Your task to perform on an android device: choose inbox layout in the gmail app Image 0: 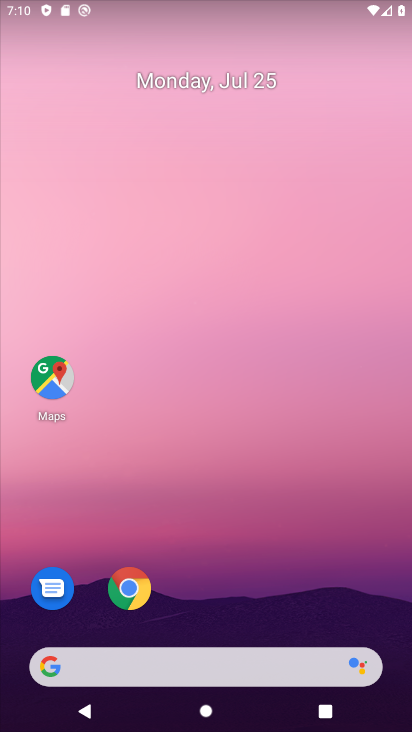
Step 0: drag from (212, 542) to (281, 277)
Your task to perform on an android device: choose inbox layout in the gmail app Image 1: 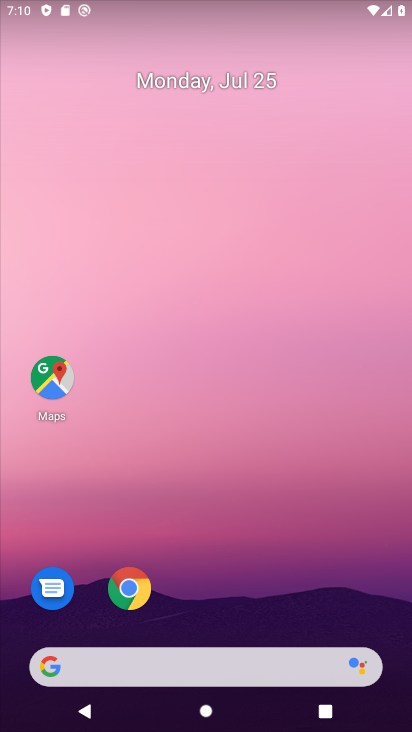
Step 1: drag from (304, 524) to (352, 95)
Your task to perform on an android device: choose inbox layout in the gmail app Image 2: 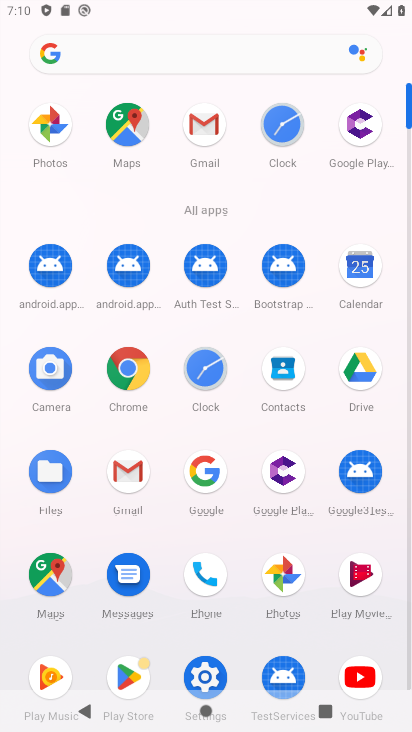
Step 2: click (195, 105)
Your task to perform on an android device: choose inbox layout in the gmail app Image 3: 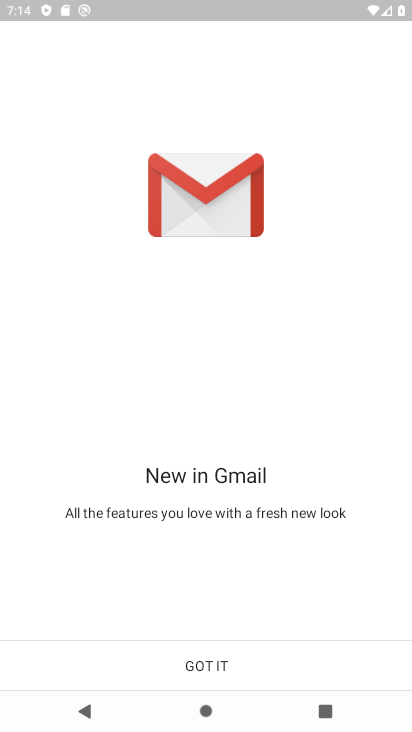
Step 3: click (202, 666)
Your task to perform on an android device: choose inbox layout in the gmail app Image 4: 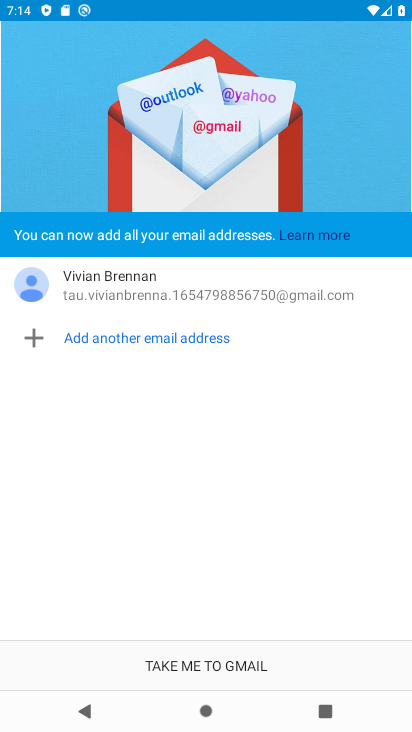
Step 4: click (161, 662)
Your task to perform on an android device: choose inbox layout in the gmail app Image 5: 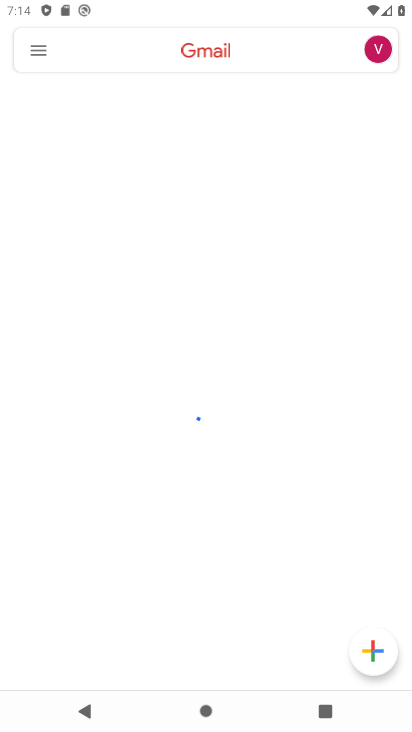
Step 5: task complete